Your task to perform on an android device: change the clock display to show seconds Image 0: 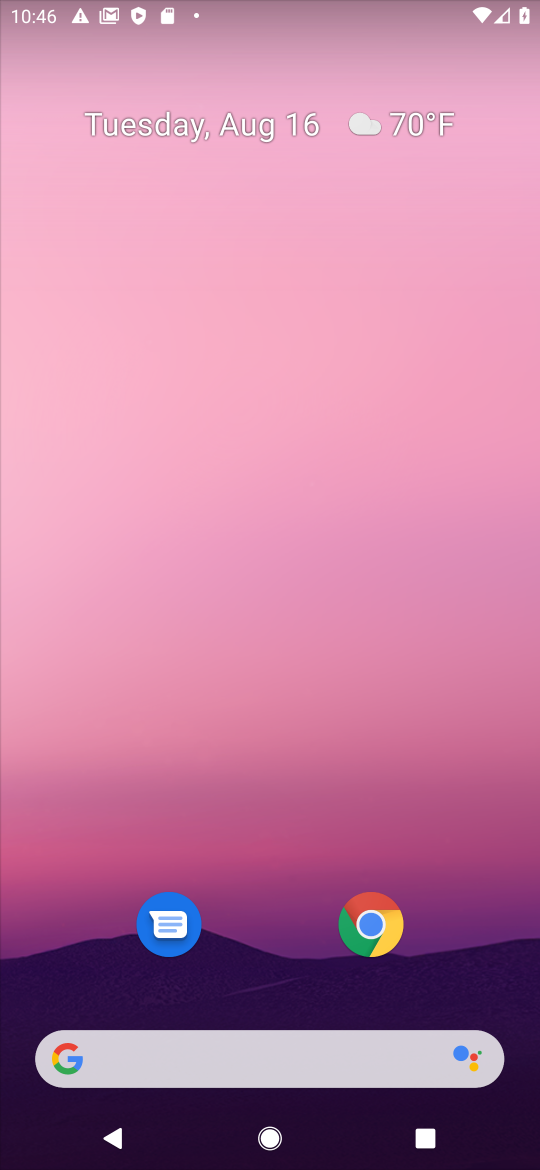
Step 0: drag from (352, 732) to (266, 46)
Your task to perform on an android device: change the clock display to show seconds Image 1: 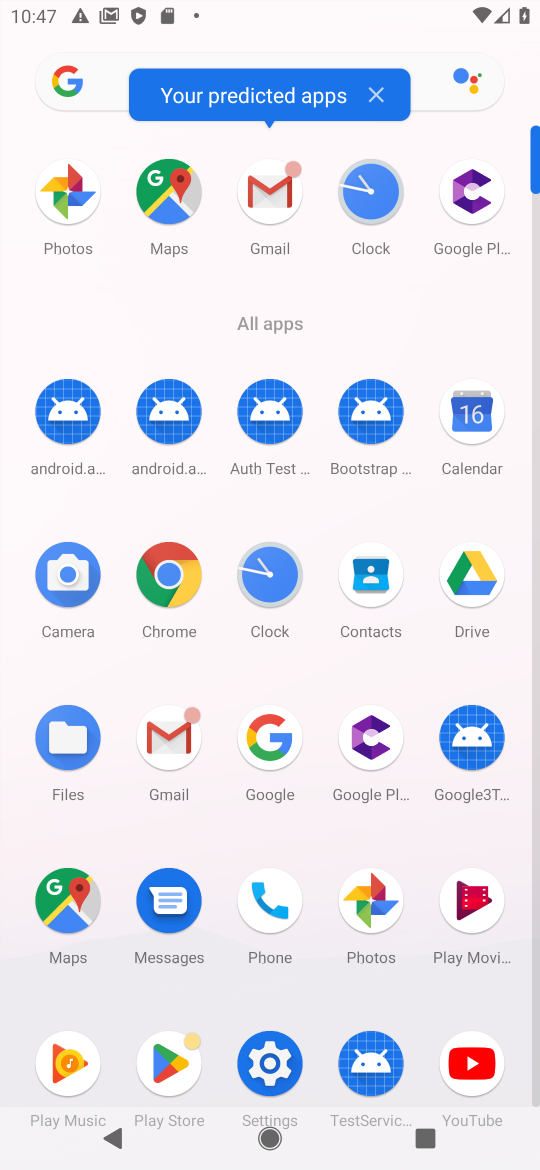
Step 1: click (341, 203)
Your task to perform on an android device: change the clock display to show seconds Image 2: 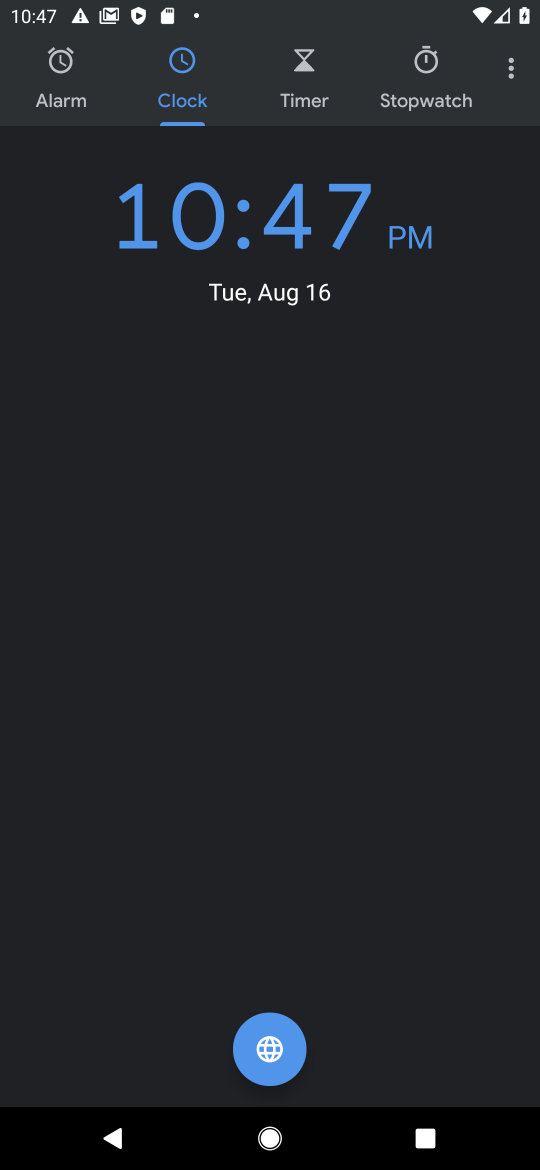
Step 2: click (517, 62)
Your task to perform on an android device: change the clock display to show seconds Image 3: 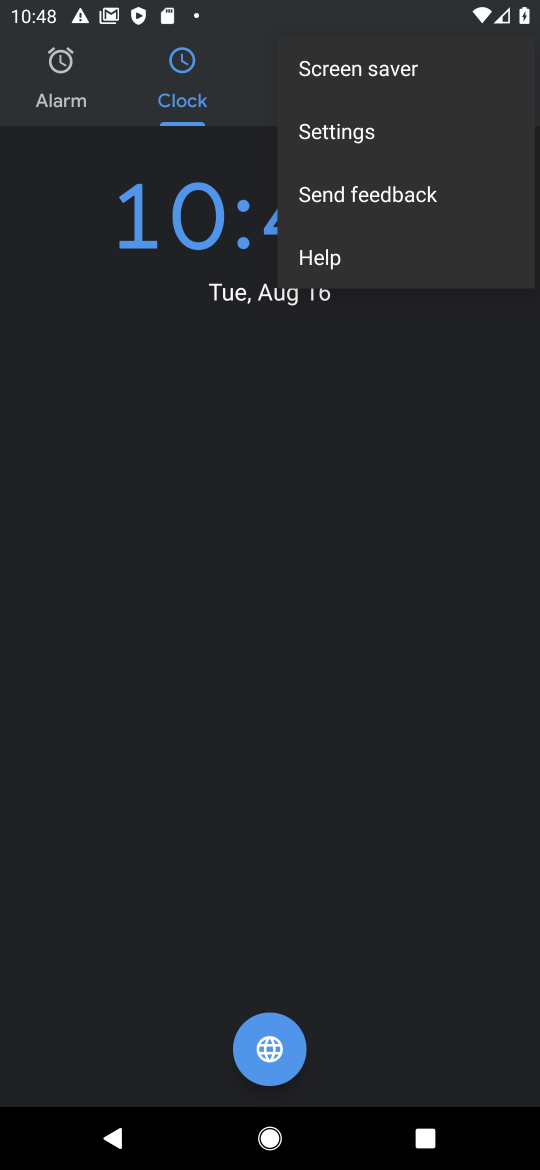
Step 3: click (416, 125)
Your task to perform on an android device: change the clock display to show seconds Image 4: 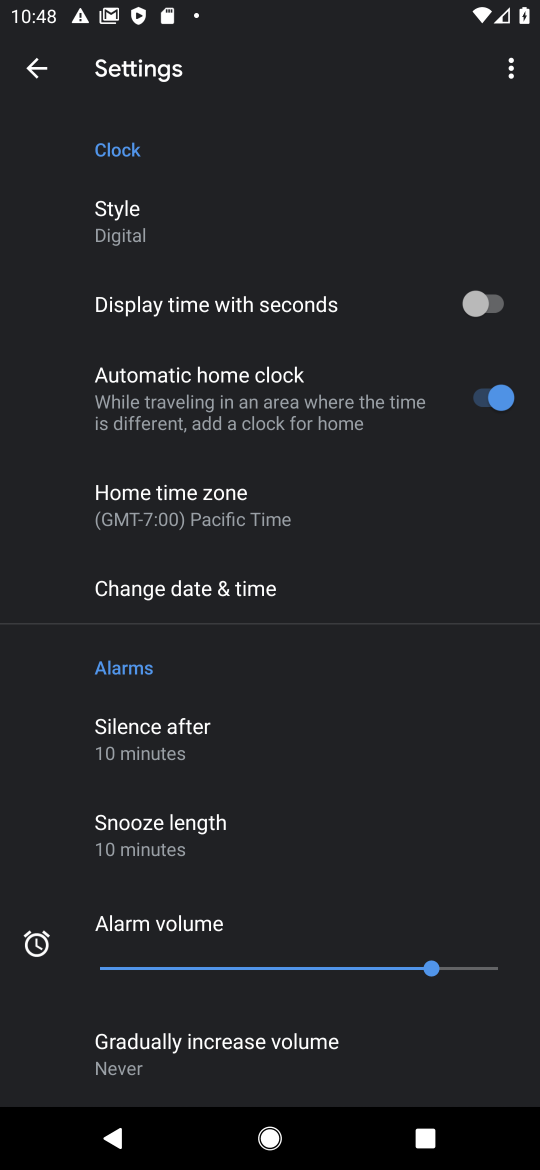
Step 4: click (497, 301)
Your task to perform on an android device: change the clock display to show seconds Image 5: 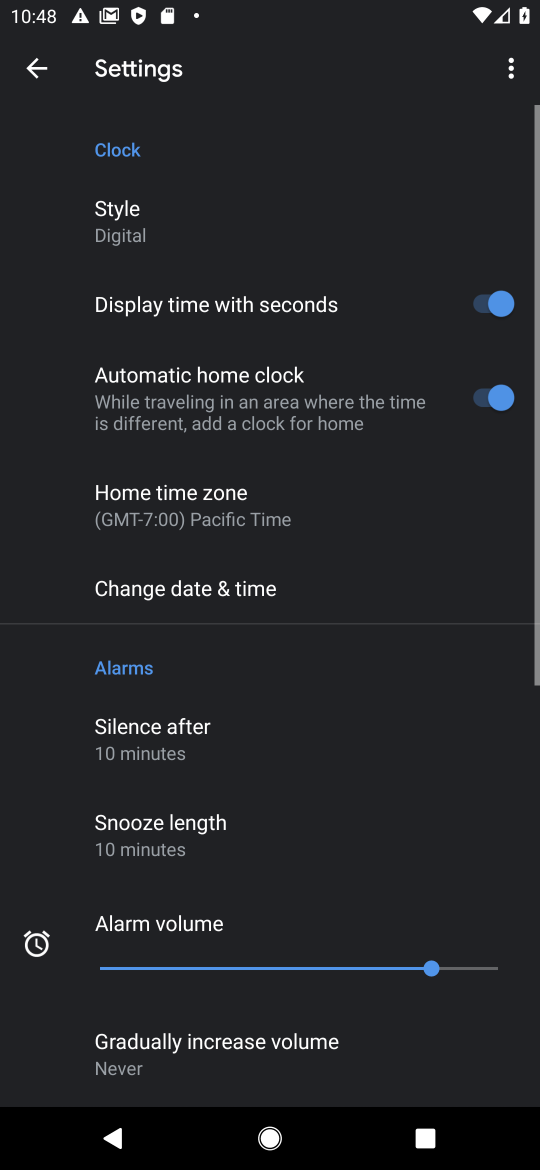
Step 5: task complete